Your task to perform on an android device: check the backup settings in the google photos Image 0: 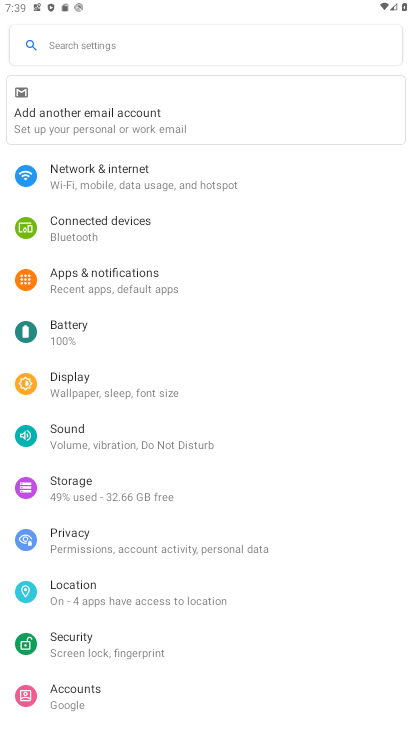
Step 0: press home button
Your task to perform on an android device: check the backup settings in the google photos Image 1: 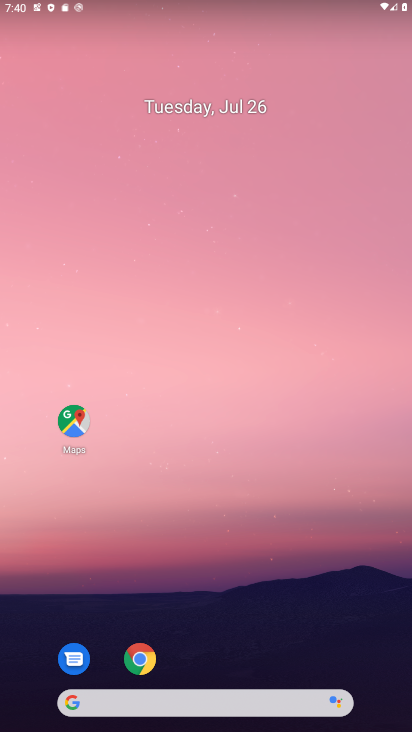
Step 1: drag from (197, 646) to (197, 20)
Your task to perform on an android device: check the backup settings in the google photos Image 2: 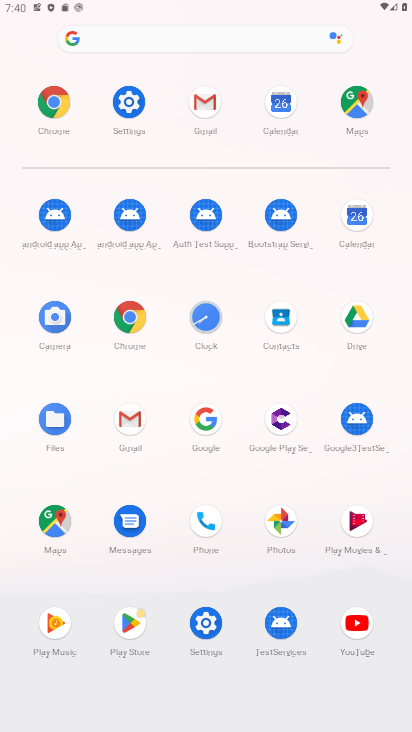
Step 2: click (267, 514)
Your task to perform on an android device: check the backup settings in the google photos Image 3: 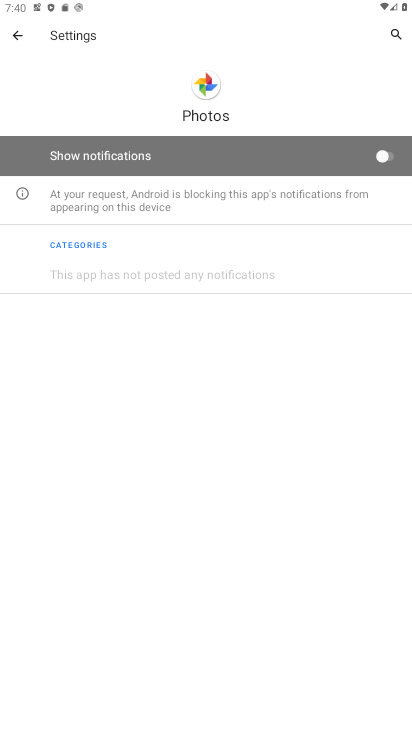
Step 3: click (16, 31)
Your task to perform on an android device: check the backup settings in the google photos Image 4: 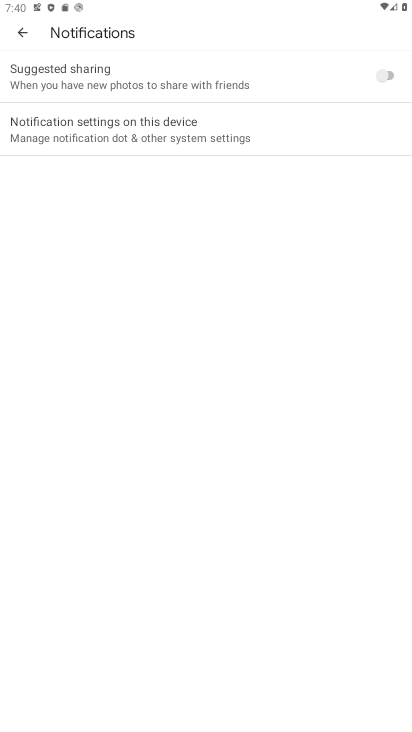
Step 4: click (16, 31)
Your task to perform on an android device: check the backup settings in the google photos Image 5: 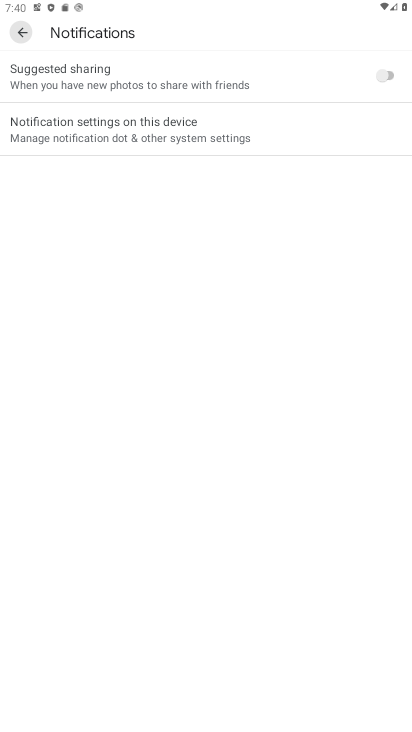
Step 5: click (16, 31)
Your task to perform on an android device: check the backup settings in the google photos Image 6: 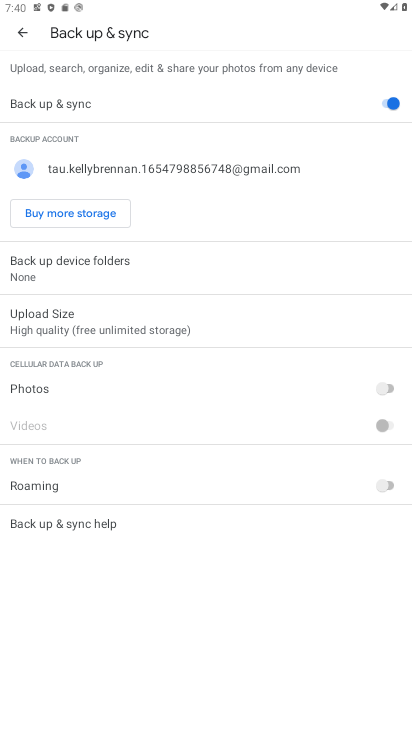
Step 6: task complete